Your task to perform on an android device: Clear the shopping cart on target.com. Search for "asus zenbook" on target.com, select the first entry, and add it to the cart. Image 0: 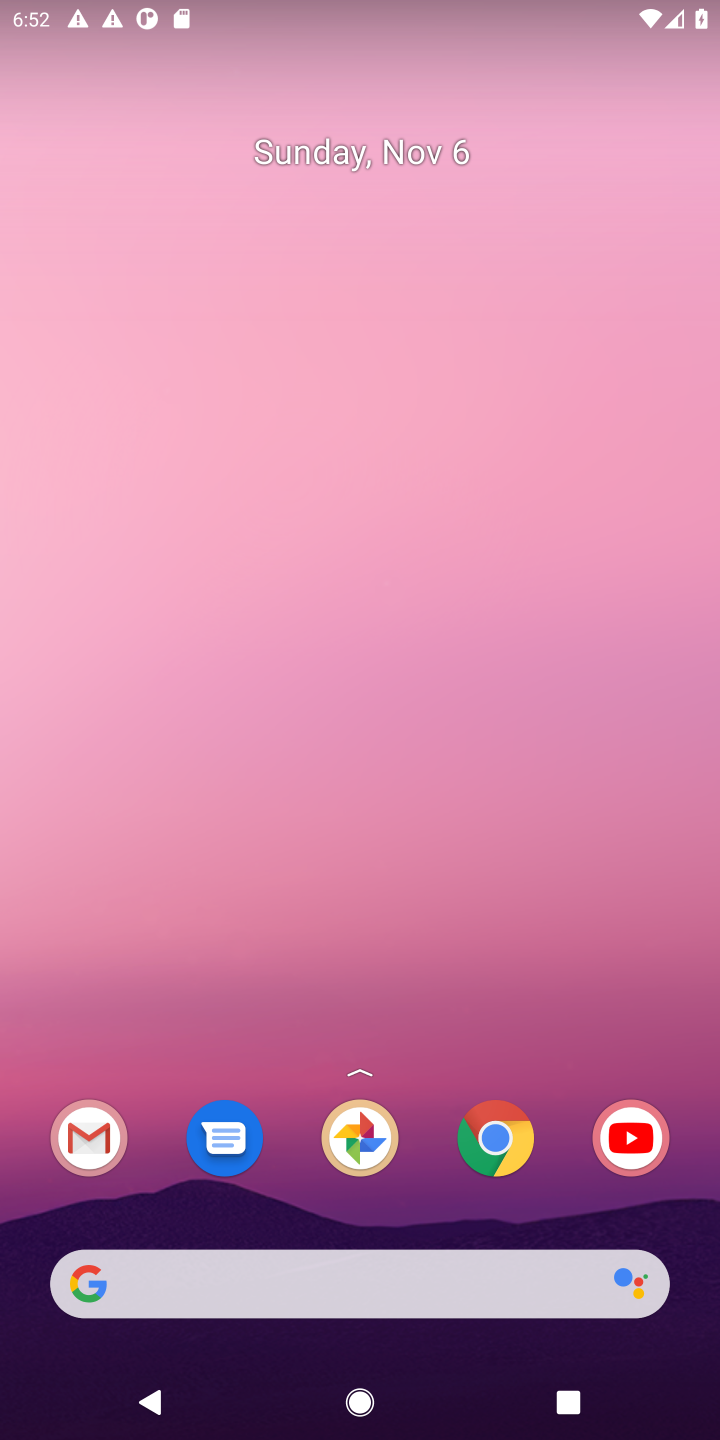
Step 0: drag from (352, 1231) to (352, 178)
Your task to perform on an android device: Clear the shopping cart on target.com. Search for "asus zenbook" on target.com, select the first entry, and add it to the cart. Image 1: 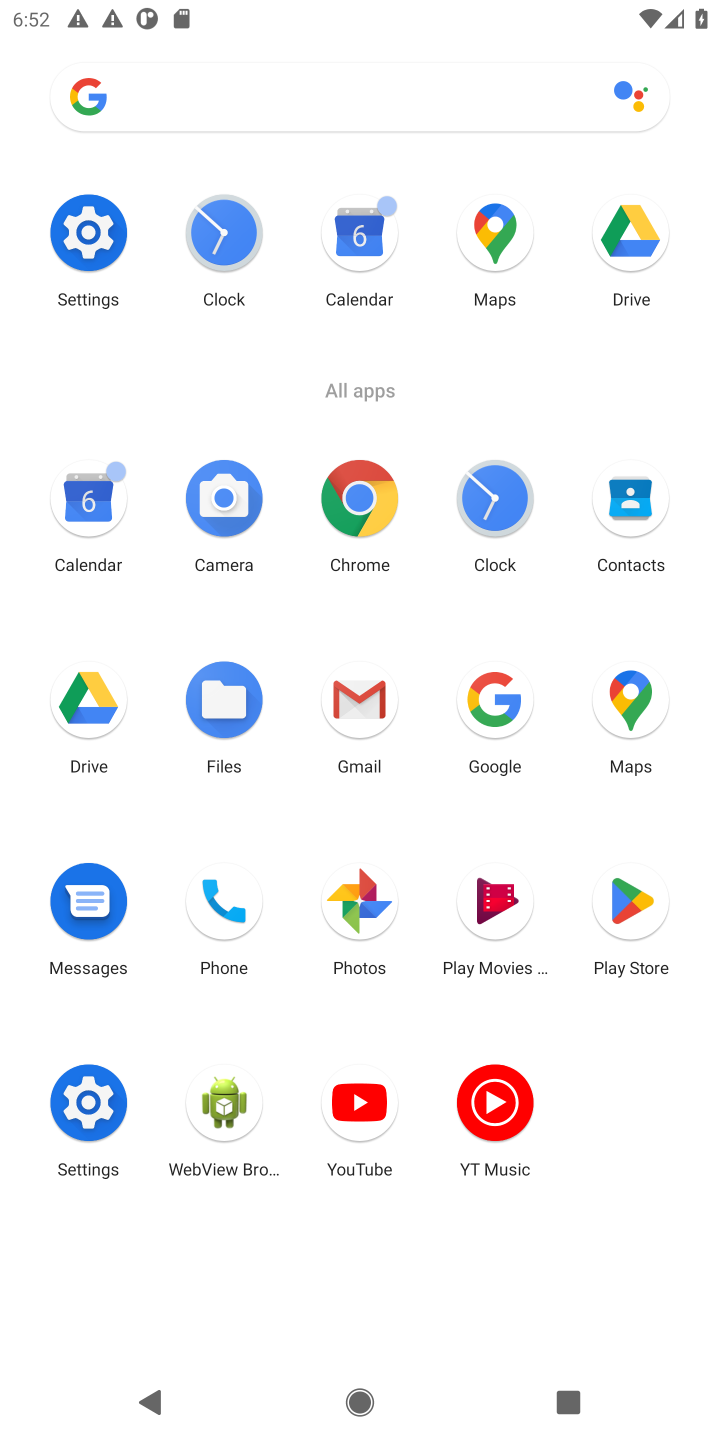
Step 1: click (493, 705)
Your task to perform on an android device: Clear the shopping cart on target.com. Search for "asus zenbook" on target.com, select the first entry, and add it to the cart. Image 2: 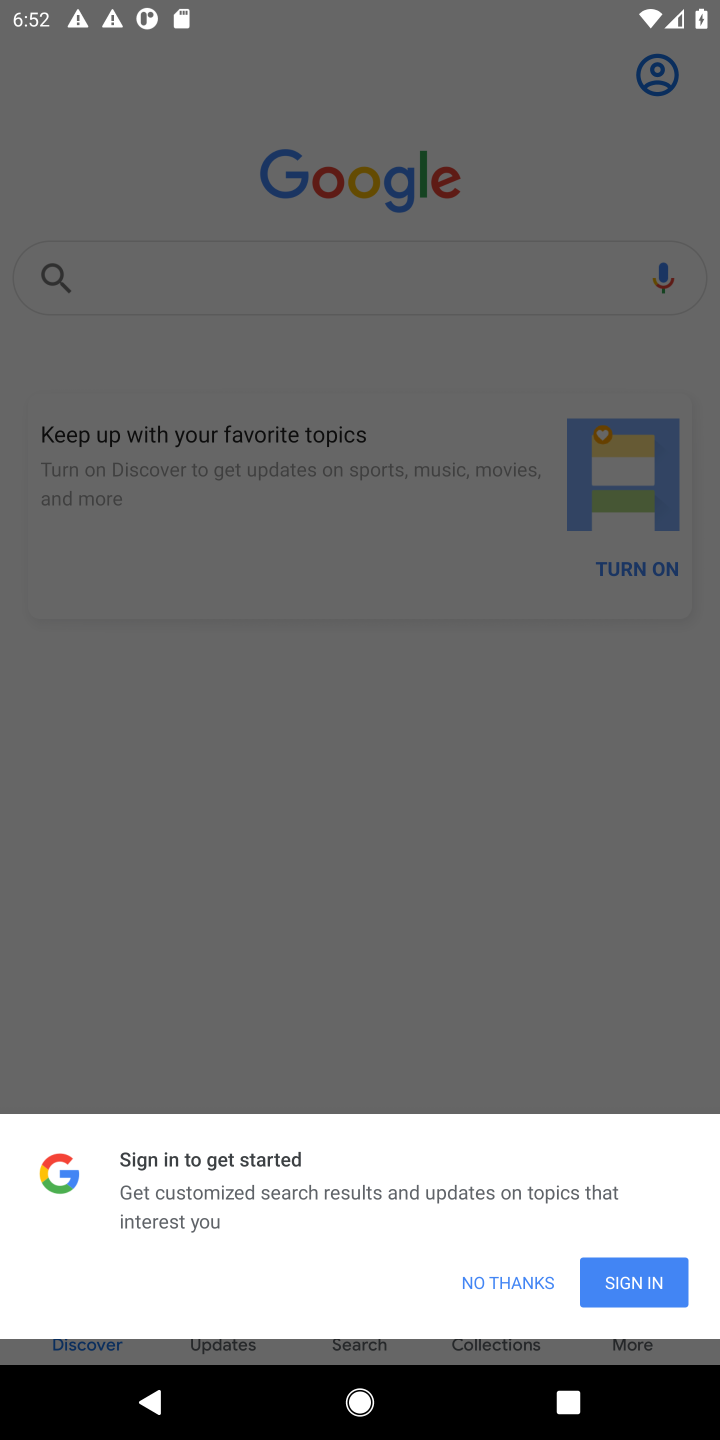
Step 2: click (518, 1299)
Your task to perform on an android device: Clear the shopping cart on target.com. Search for "asus zenbook" on target.com, select the first entry, and add it to the cart. Image 3: 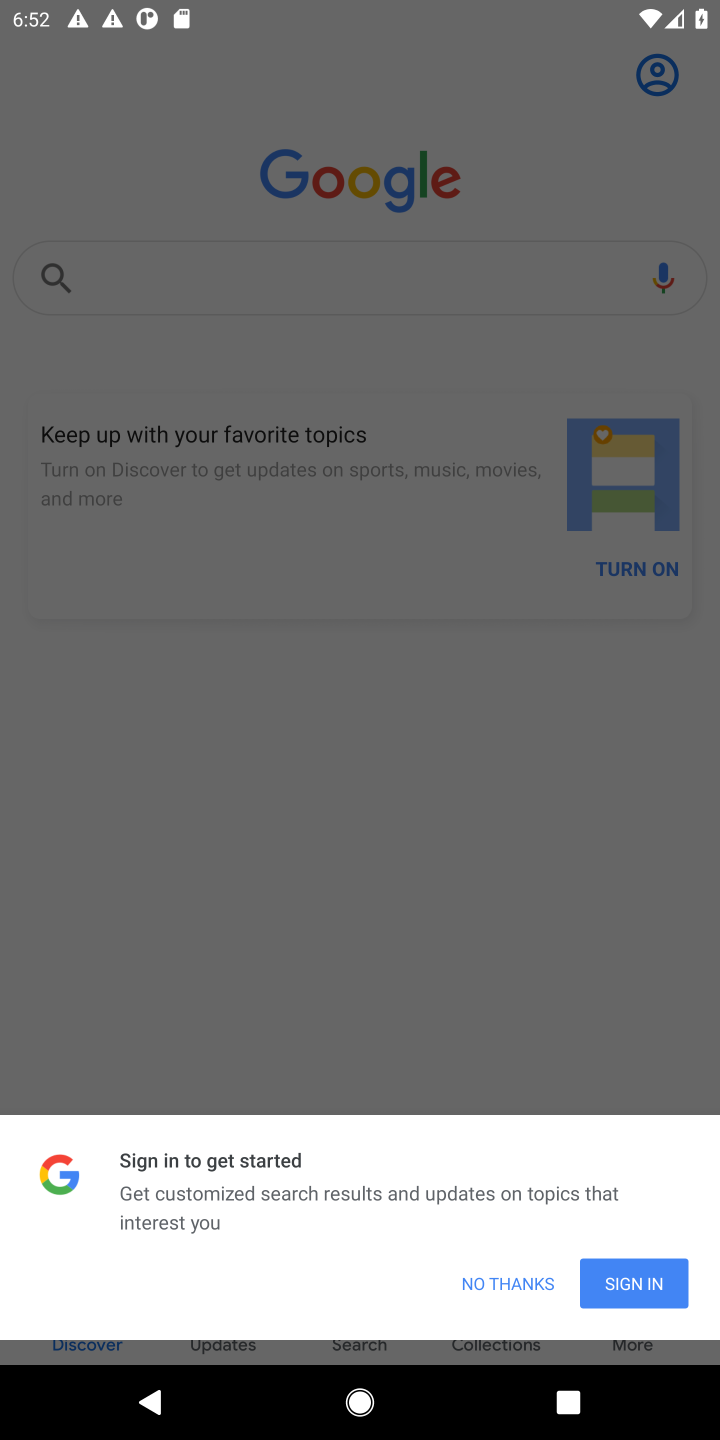
Step 3: click (502, 1276)
Your task to perform on an android device: Clear the shopping cart on target.com. Search for "asus zenbook" on target.com, select the first entry, and add it to the cart. Image 4: 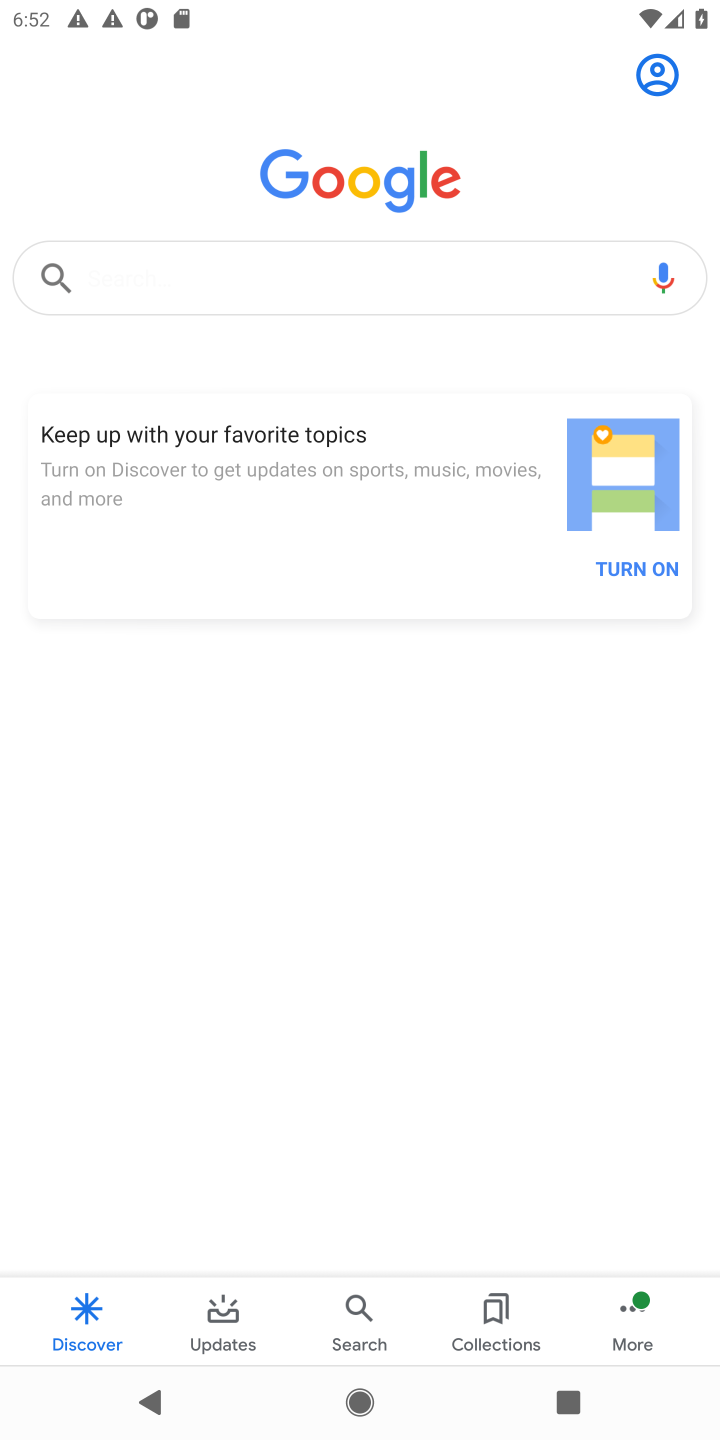
Step 4: click (502, 1276)
Your task to perform on an android device: Clear the shopping cart on target.com. Search for "asus zenbook" on target.com, select the first entry, and add it to the cart. Image 5: 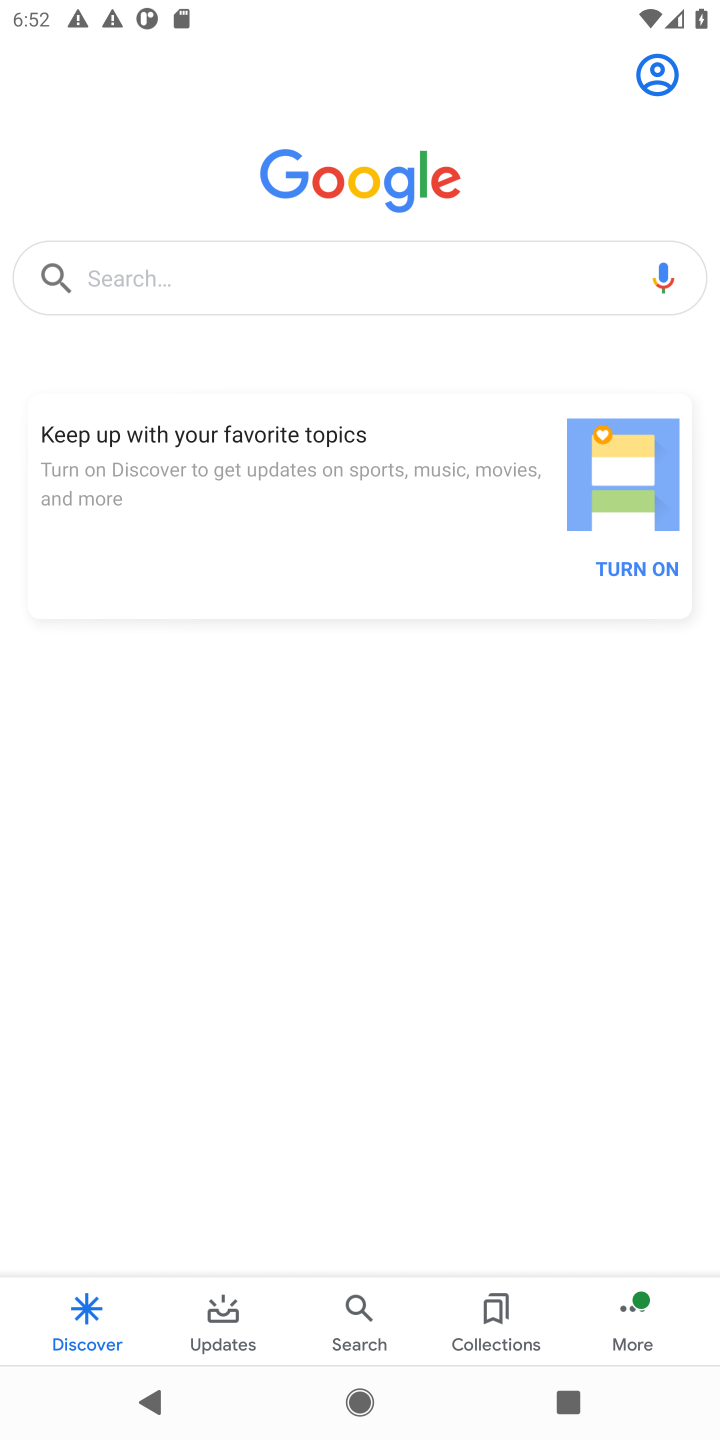
Step 5: click (332, 268)
Your task to perform on an android device: Clear the shopping cart on target.com. Search for "asus zenbook" on target.com, select the first entry, and add it to the cart. Image 6: 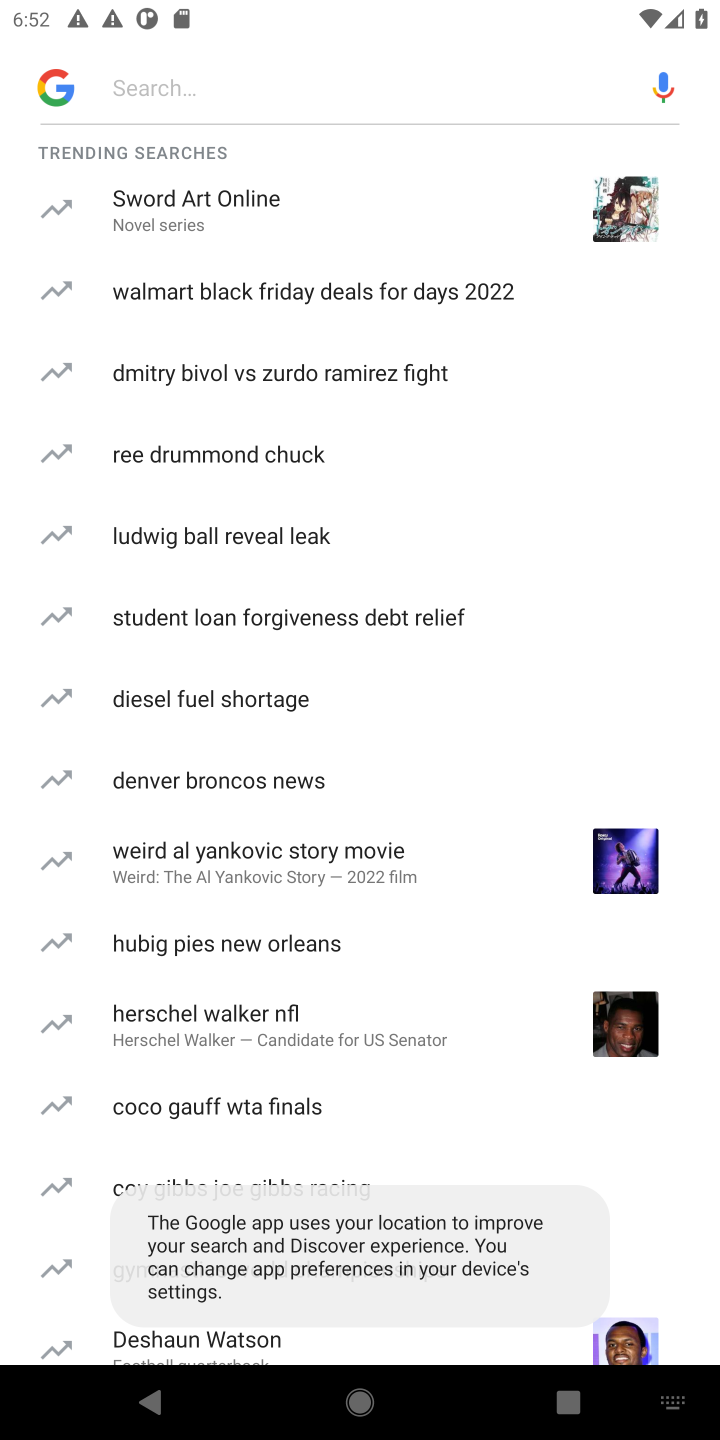
Step 6: type " target.com "
Your task to perform on an android device: Clear the shopping cart on target.com. Search for "asus zenbook" on target.com, select the first entry, and add it to the cart. Image 7: 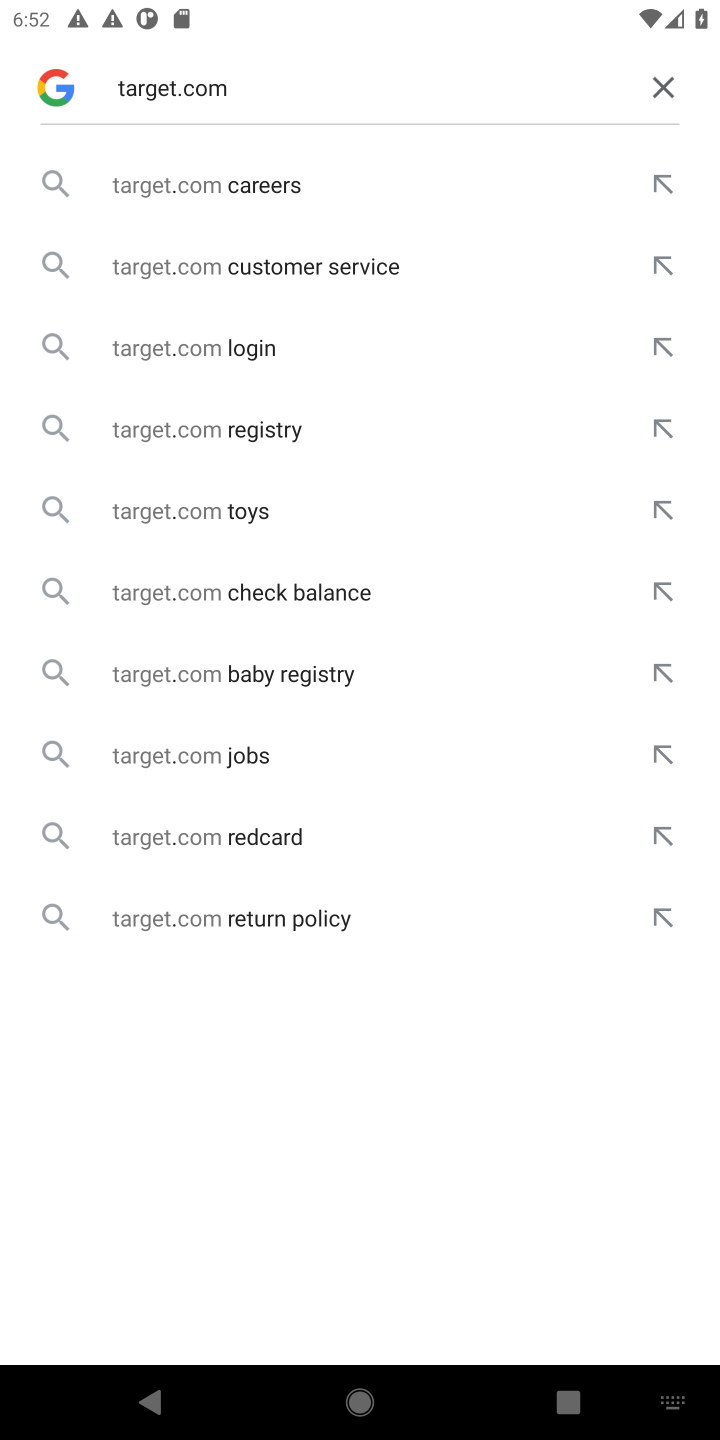
Step 7: click (192, 345)
Your task to perform on an android device: Clear the shopping cart on target.com. Search for "asus zenbook" on target.com, select the first entry, and add it to the cart. Image 8: 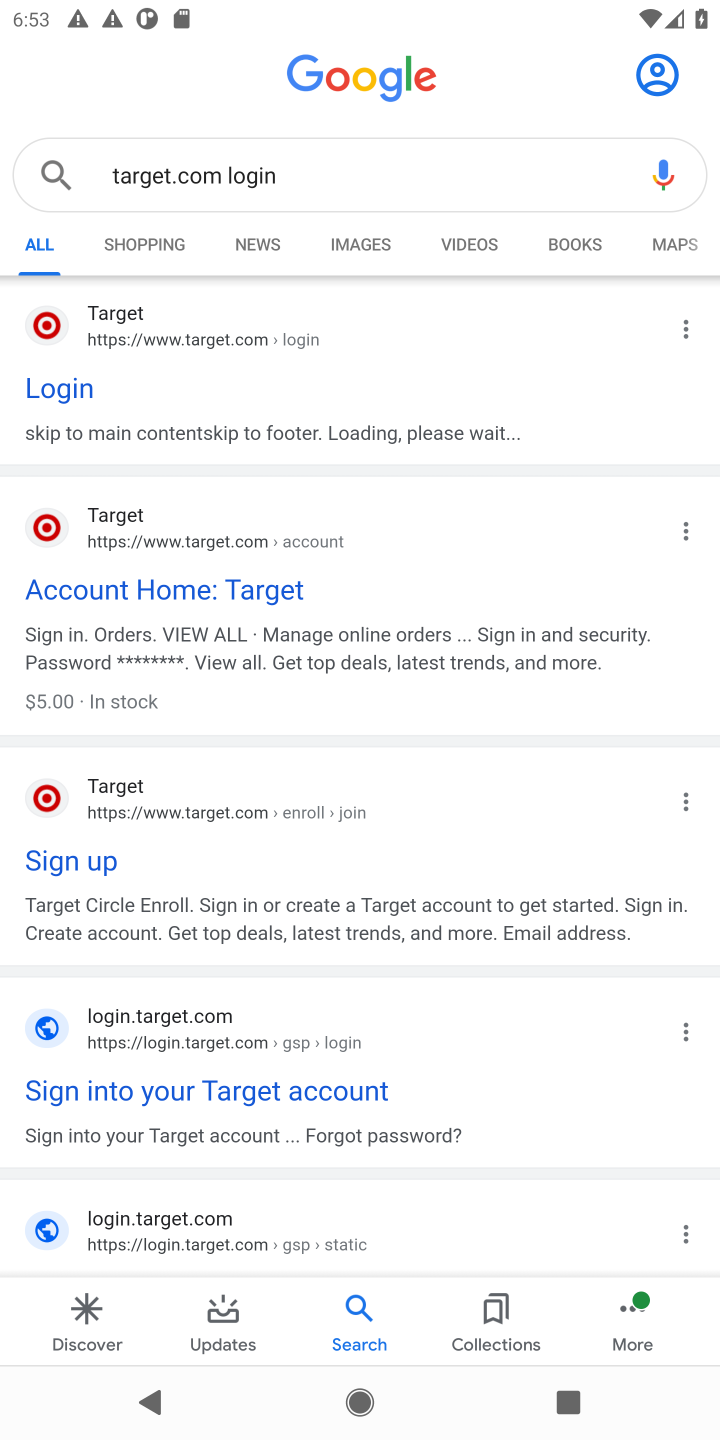
Step 8: click (46, 329)
Your task to perform on an android device: Clear the shopping cart on target.com. Search for "asus zenbook" on target.com, select the first entry, and add it to the cart. Image 9: 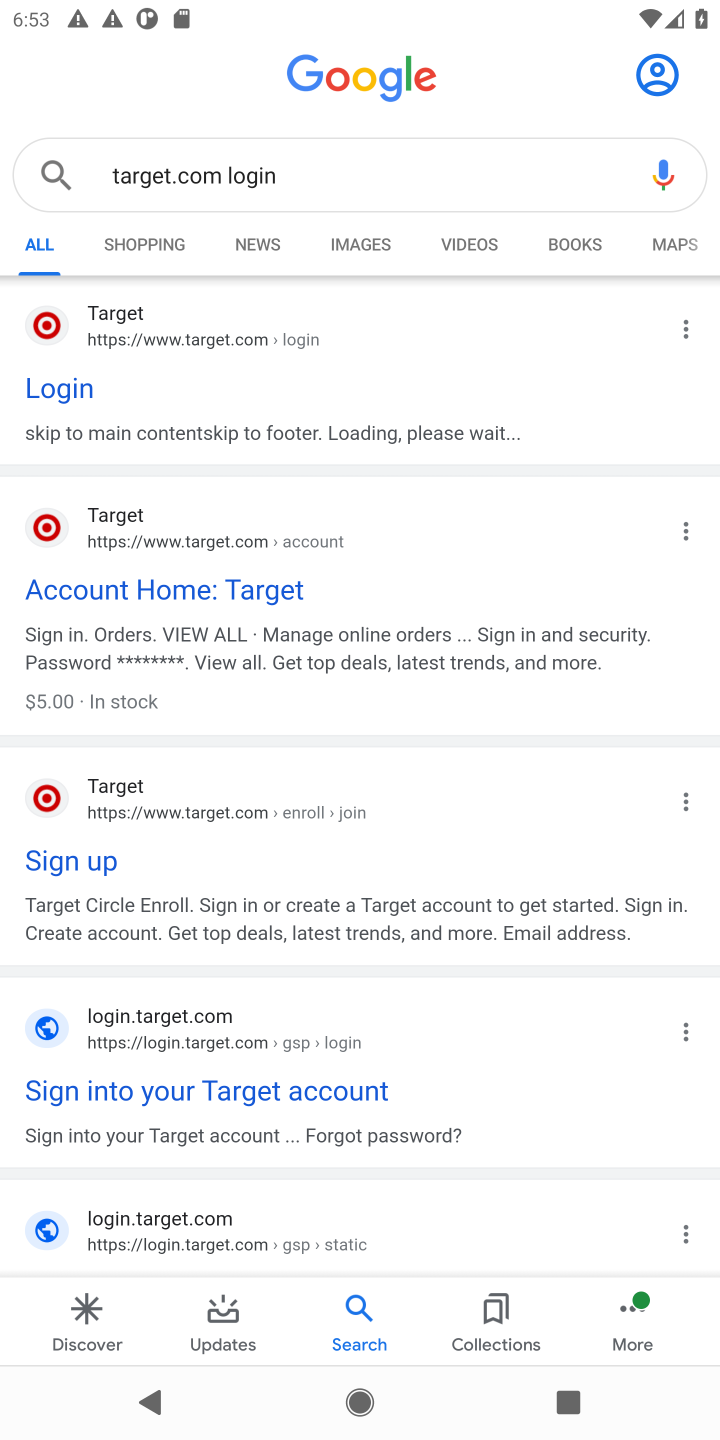
Step 9: click (46, 329)
Your task to perform on an android device: Clear the shopping cart on target.com. Search for "asus zenbook" on target.com, select the first entry, and add it to the cart. Image 10: 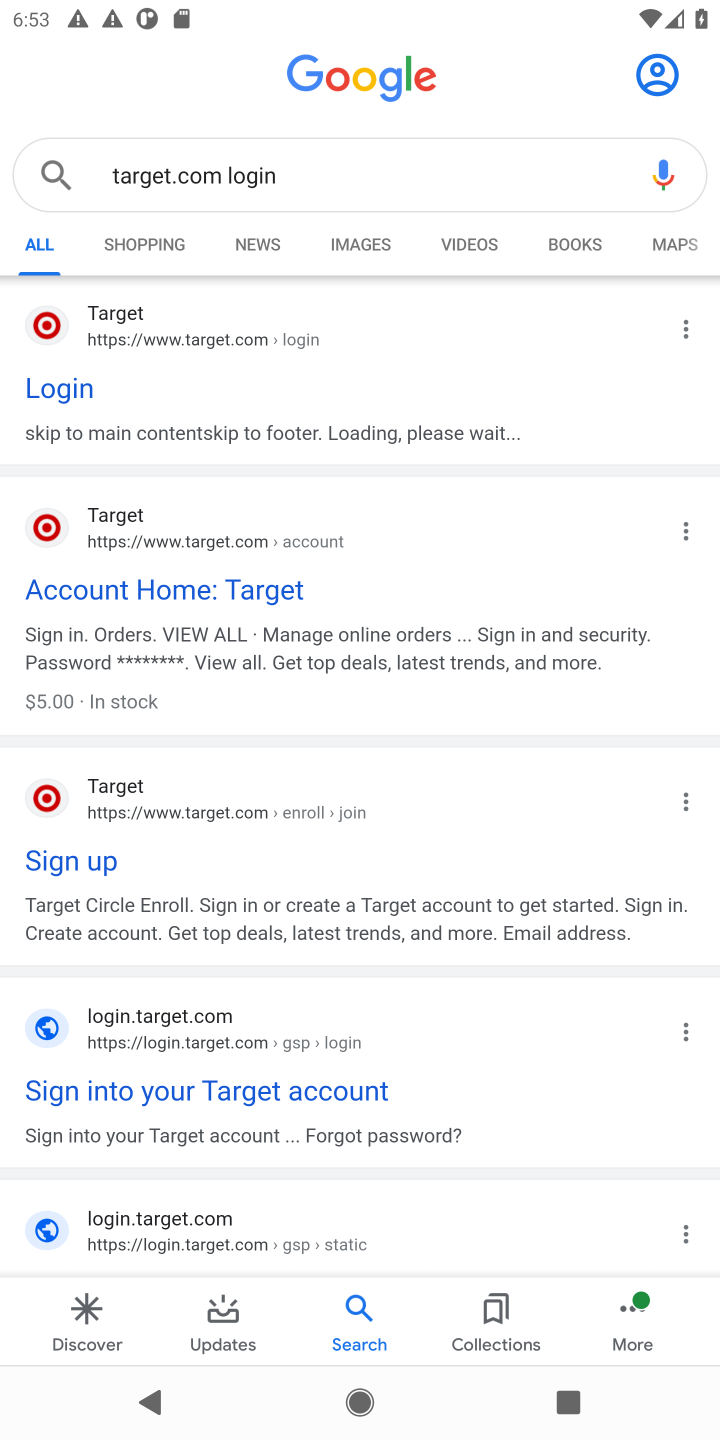
Step 10: click (46, 326)
Your task to perform on an android device: Clear the shopping cart on target.com. Search for "asus zenbook" on target.com, select the first entry, and add it to the cart. Image 11: 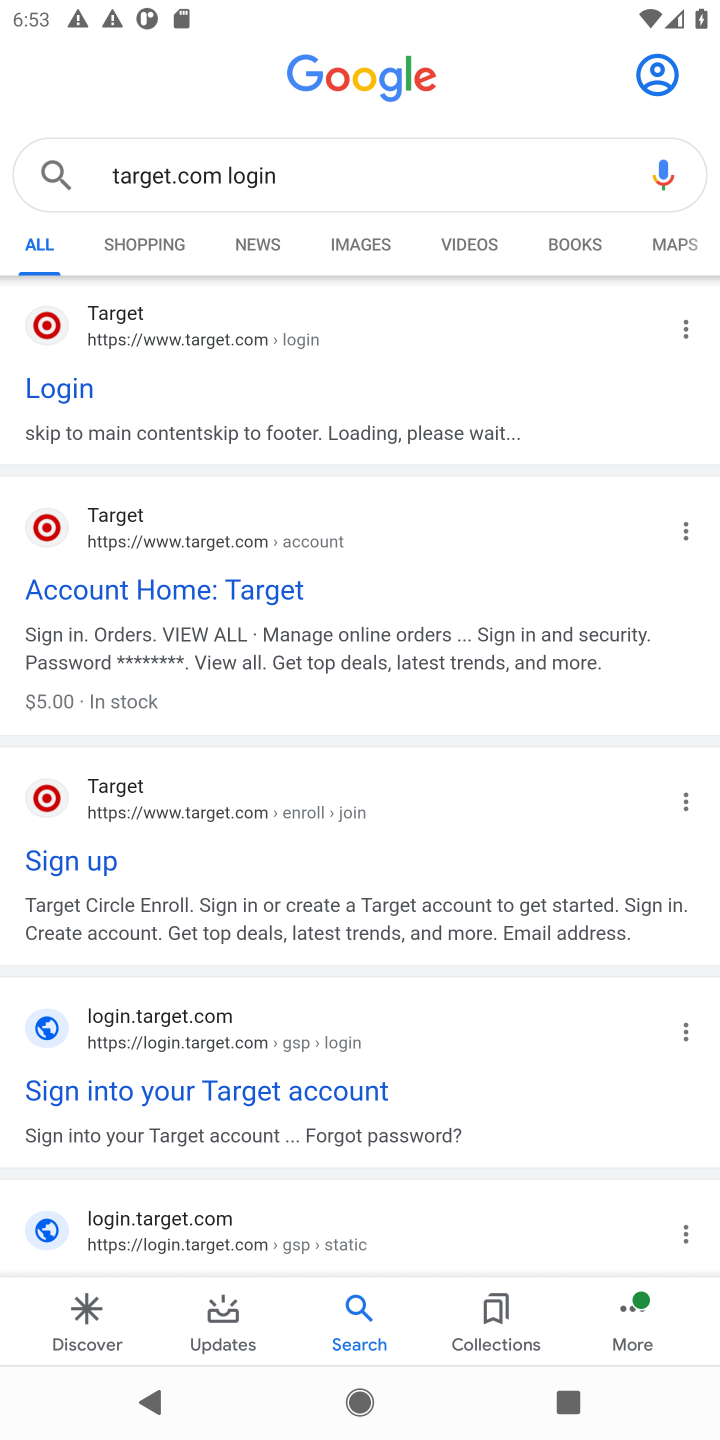
Step 11: click (46, 326)
Your task to perform on an android device: Clear the shopping cart on target.com. Search for "asus zenbook" on target.com, select the first entry, and add it to the cart. Image 12: 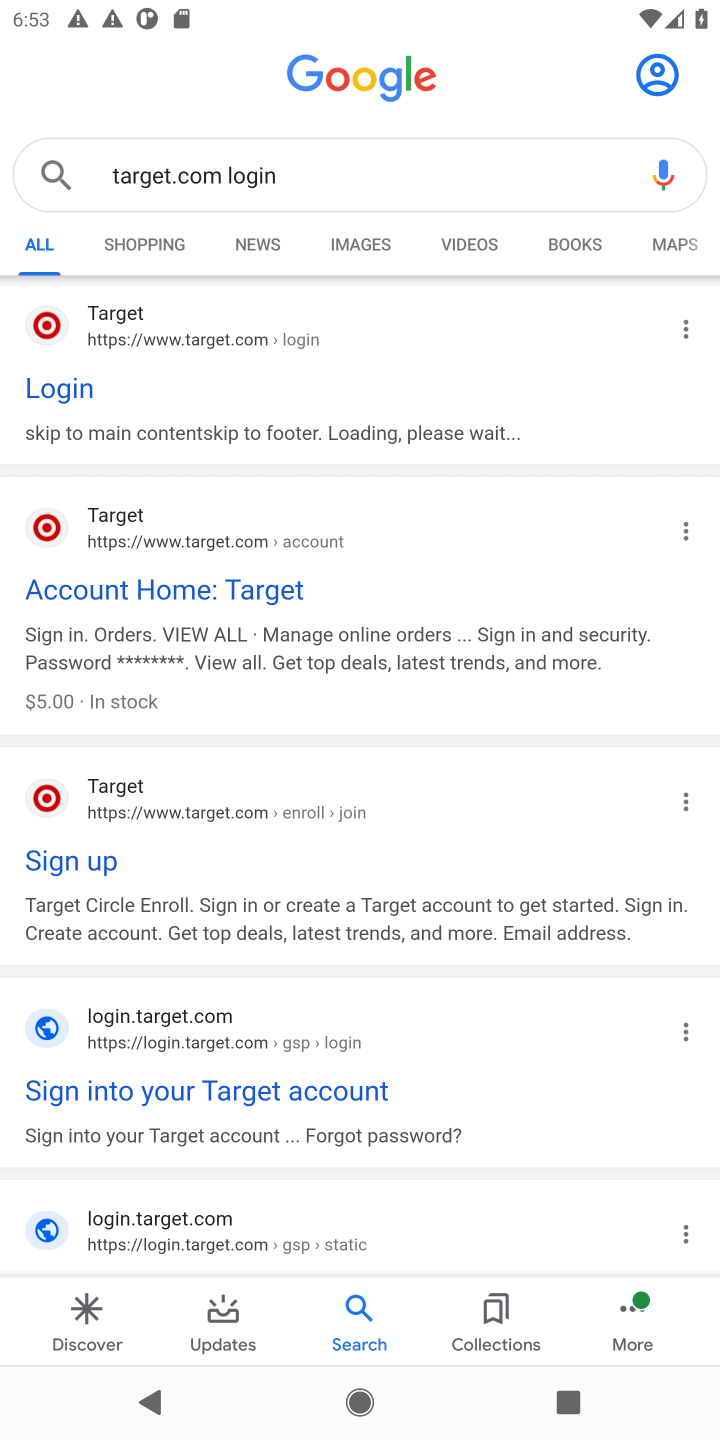
Step 12: click (46, 326)
Your task to perform on an android device: Clear the shopping cart on target.com. Search for "asus zenbook" on target.com, select the first entry, and add it to the cart. Image 13: 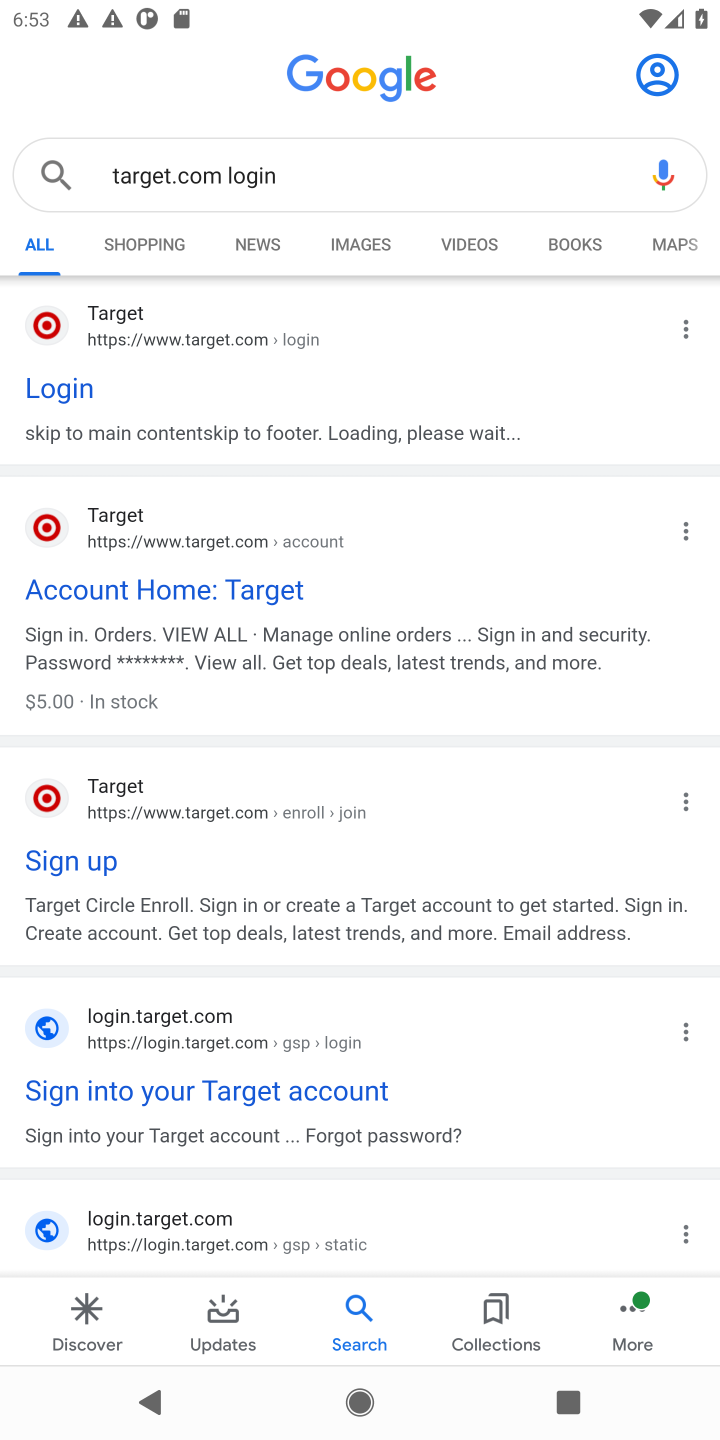
Step 13: click (45, 324)
Your task to perform on an android device: Clear the shopping cart on target.com. Search for "asus zenbook" on target.com, select the first entry, and add it to the cart. Image 14: 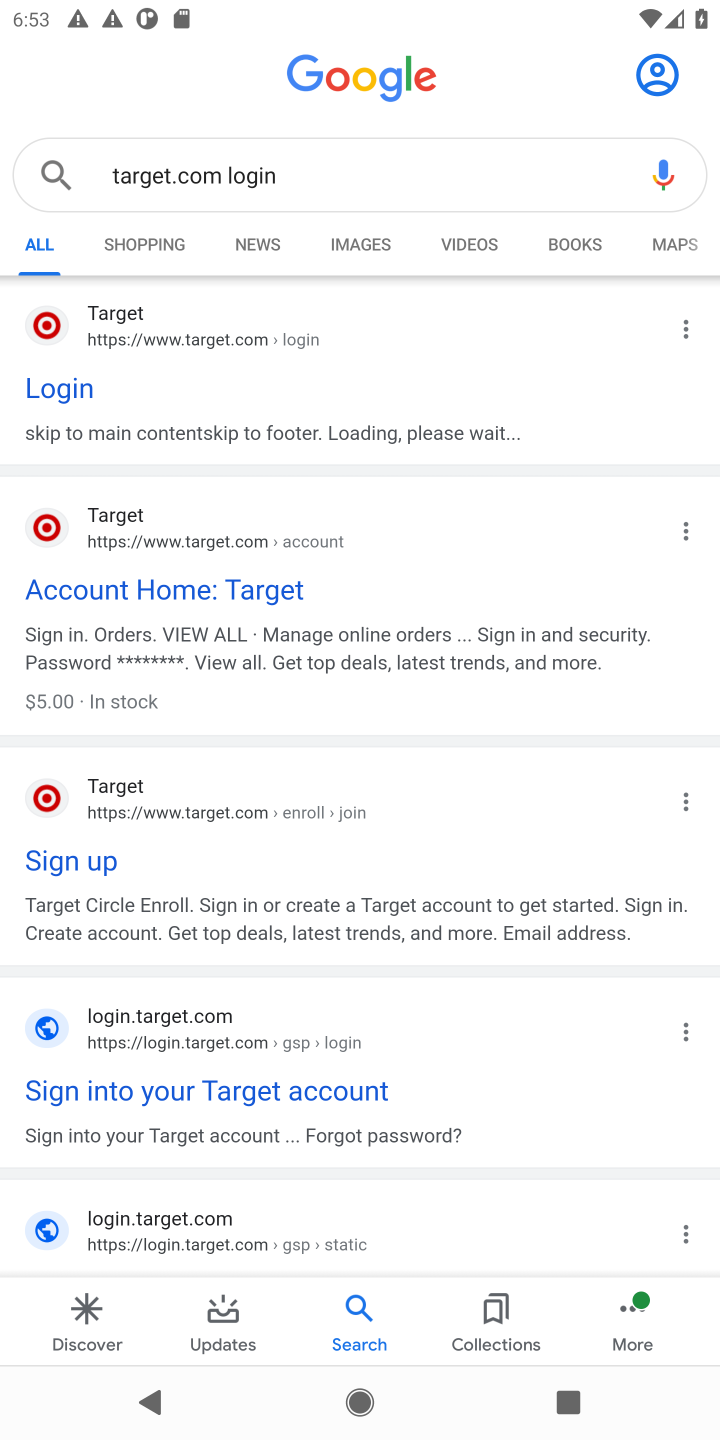
Step 14: click (53, 371)
Your task to perform on an android device: Clear the shopping cart on target.com. Search for "asus zenbook" on target.com, select the first entry, and add it to the cart. Image 15: 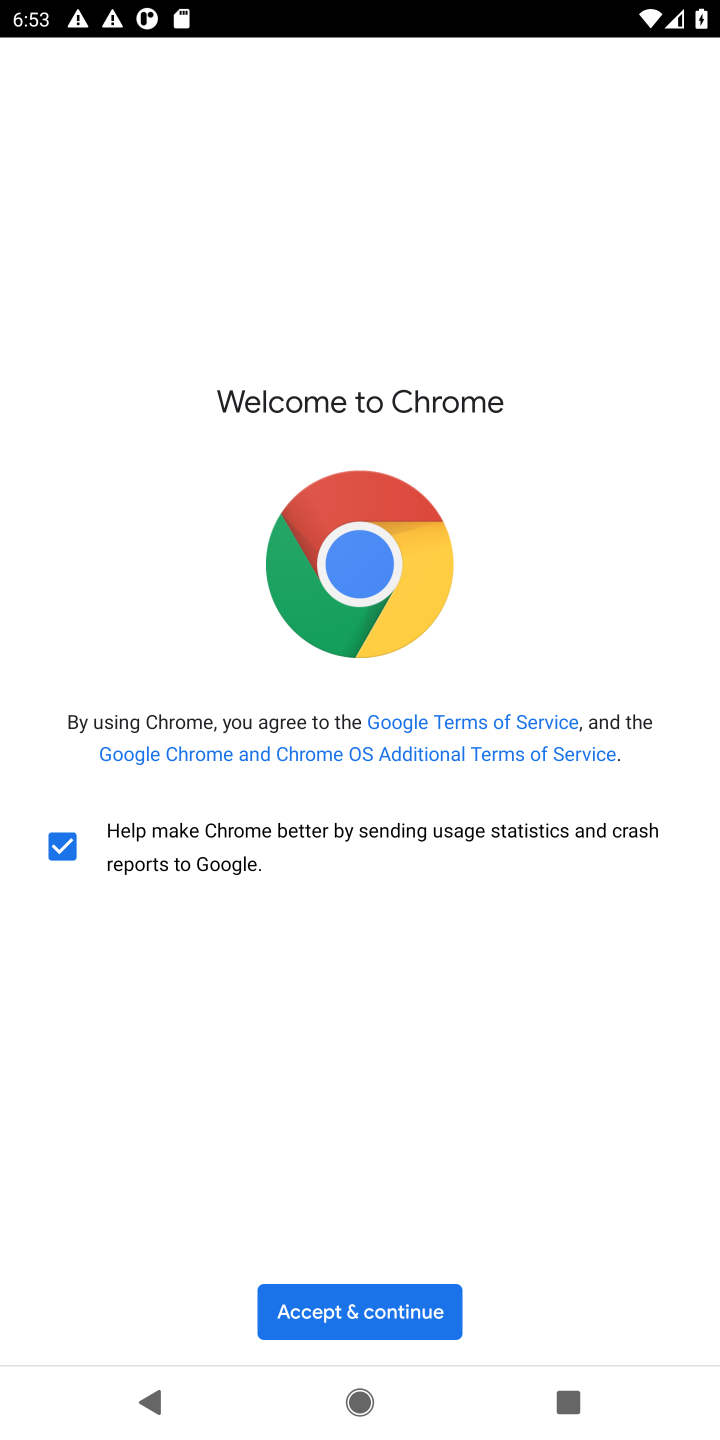
Step 15: click (404, 1293)
Your task to perform on an android device: Clear the shopping cart on target.com. Search for "asus zenbook" on target.com, select the first entry, and add it to the cart. Image 16: 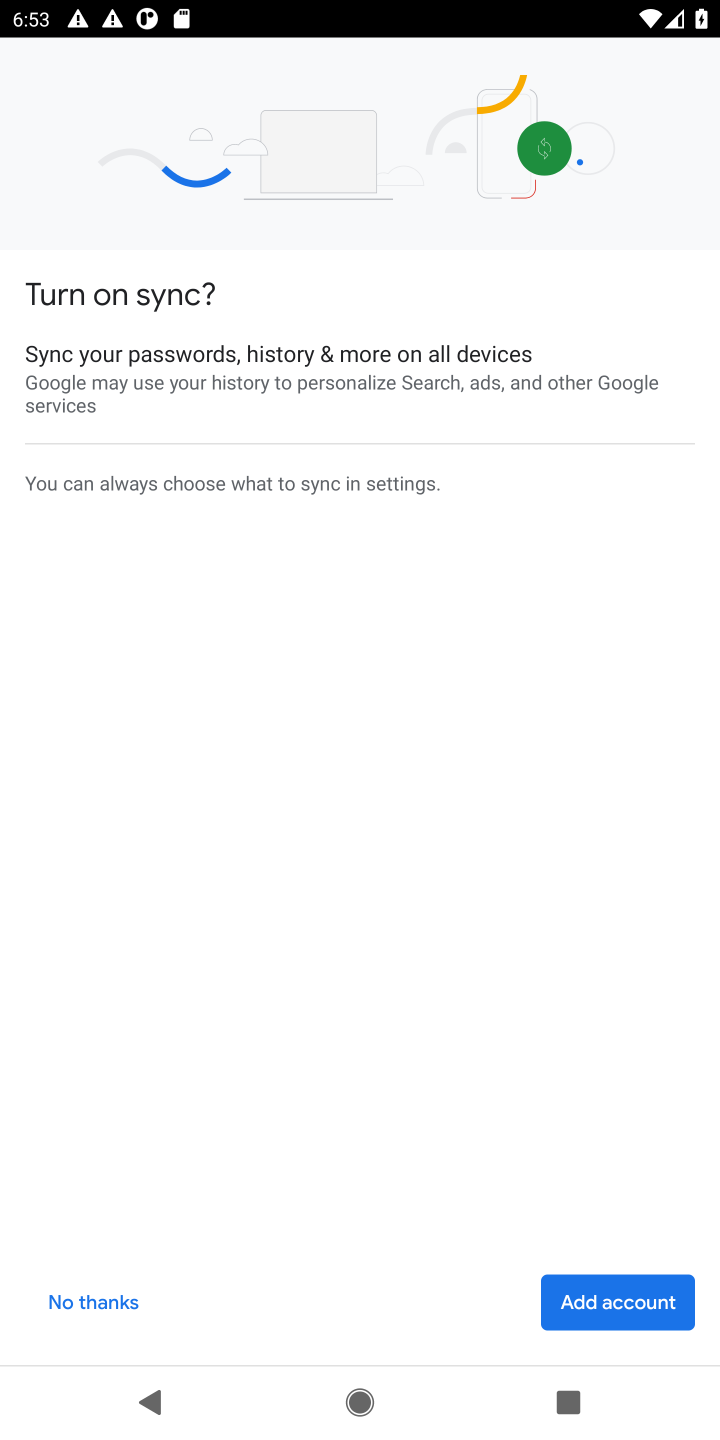
Step 16: click (111, 1289)
Your task to perform on an android device: Clear the shopping cart on target.com. Search for "asus zenbook" on target.com, select the first entry, and add it to the cart. Image 17: 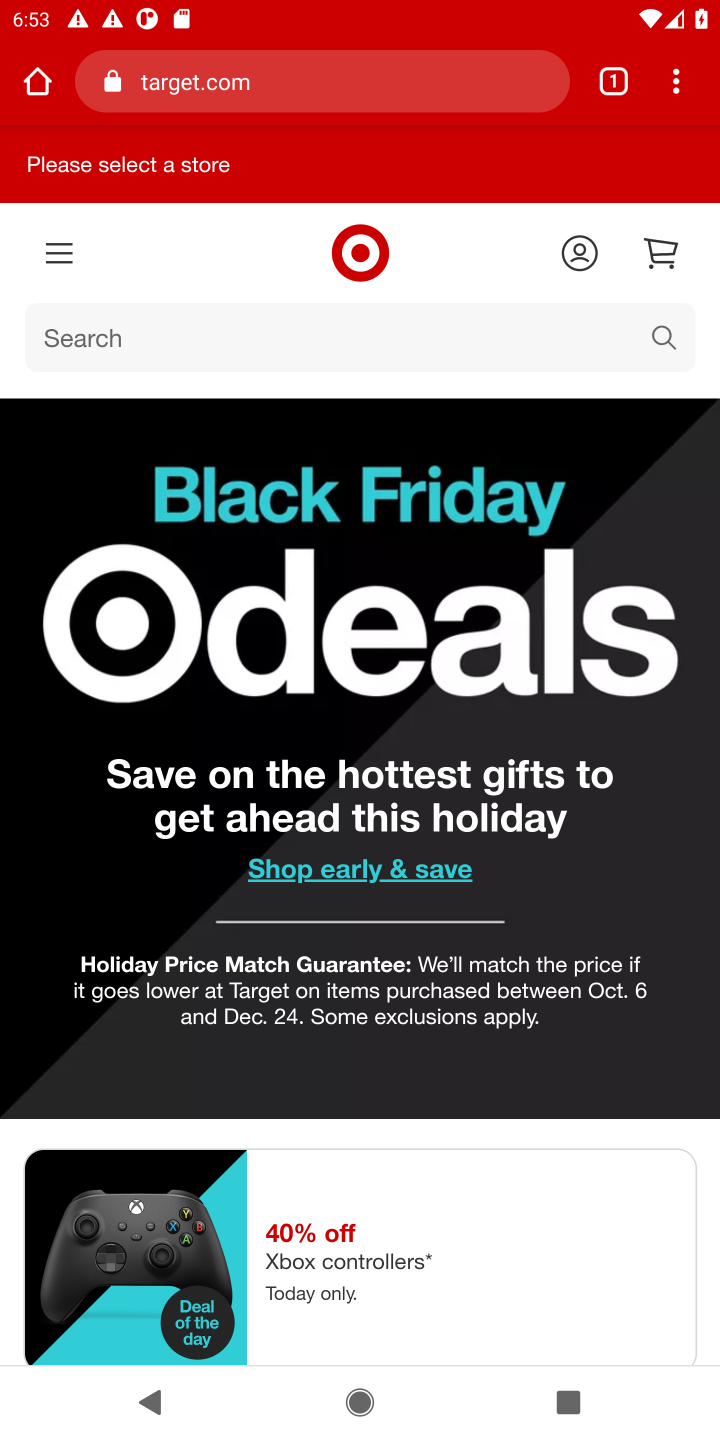
Step 17: click (230, 329)
Your task to perform on an android device: Clear the shopping cart on target.com. Search for "asus zenbook" on target.com, select the first entry, and add it to the cart. Image 18: 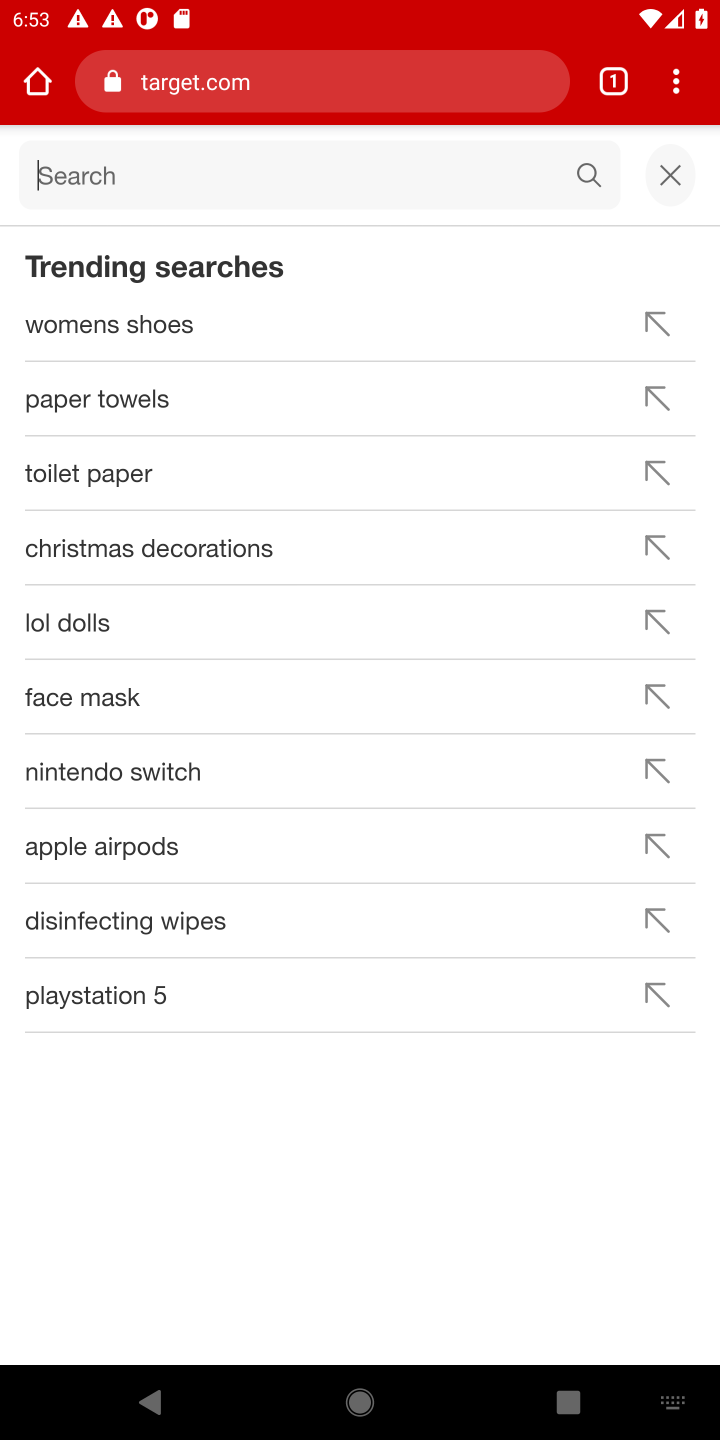
Step 18: type "asus zenbook "
Your task to perform on an android device: Clear the shopping cart on target.com. Search for "asus zenbook" on target.com, select the first entry, and add it to the cart. Image 19: 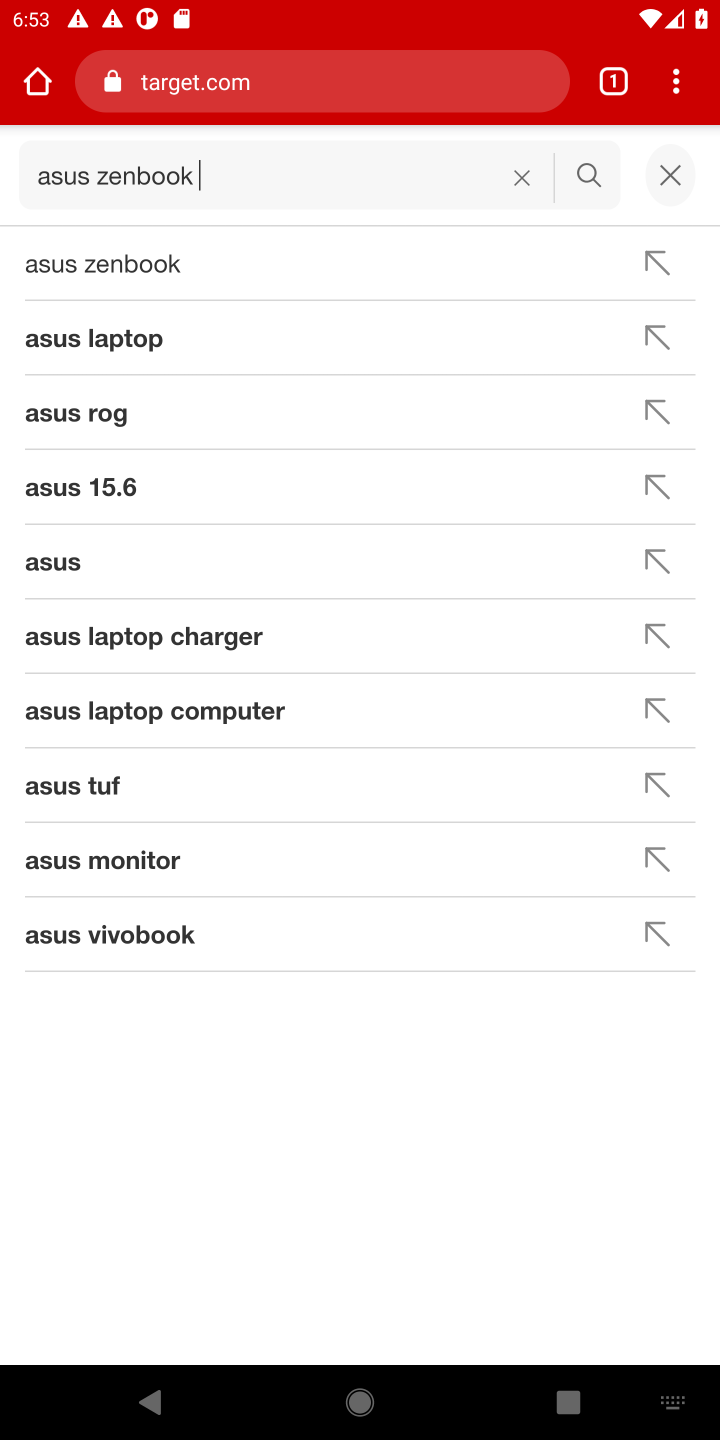
Step 19: click (378, 281)
Your task to perform on an android device: Clear the shopping cart on target.com. Search for "asus zenbook" on target.com, select the first entry, and add it to the cart. Image 20: 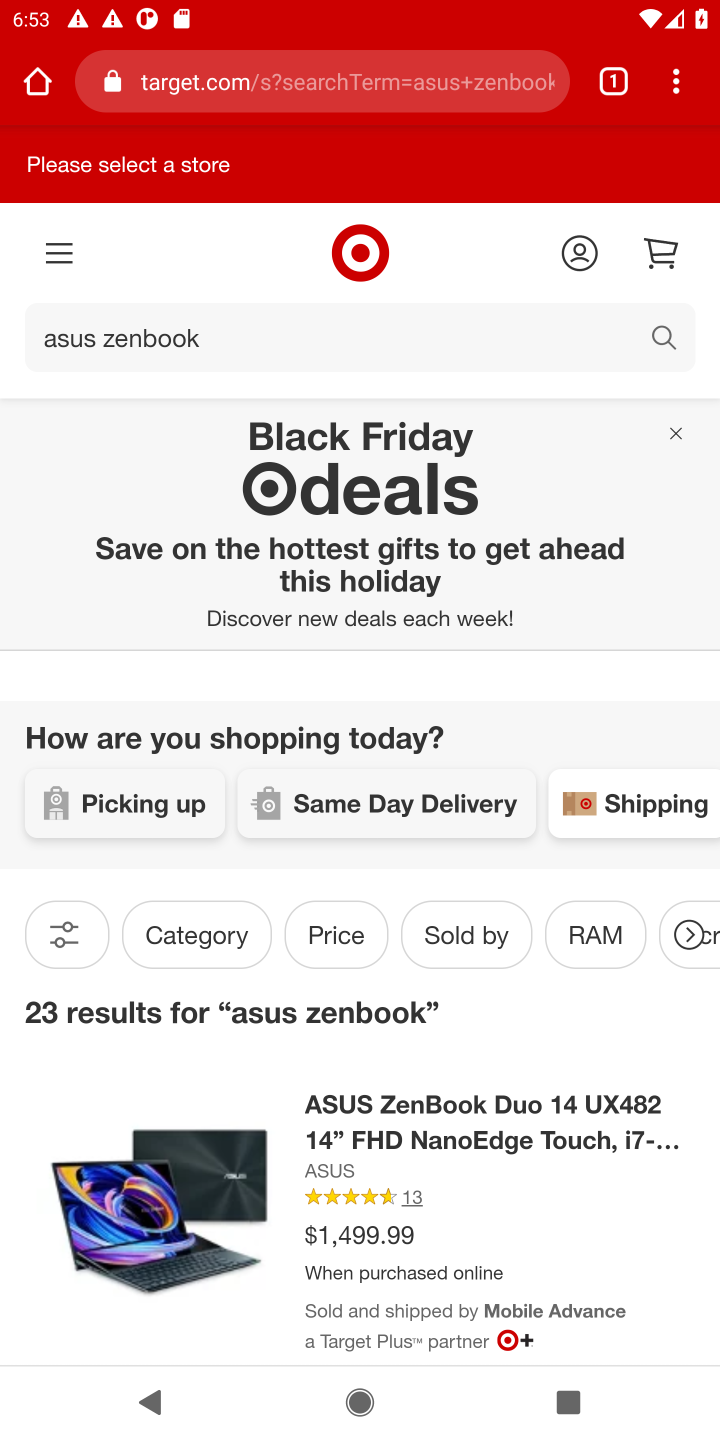
Step 20: drag from (433, 1152) to (436, 557)
Your task to perform on an android device: Clear the shopping cart on target.com. Search for "asus zenbook" on target.com, select the first entry, and add it to the cart. Image 21: 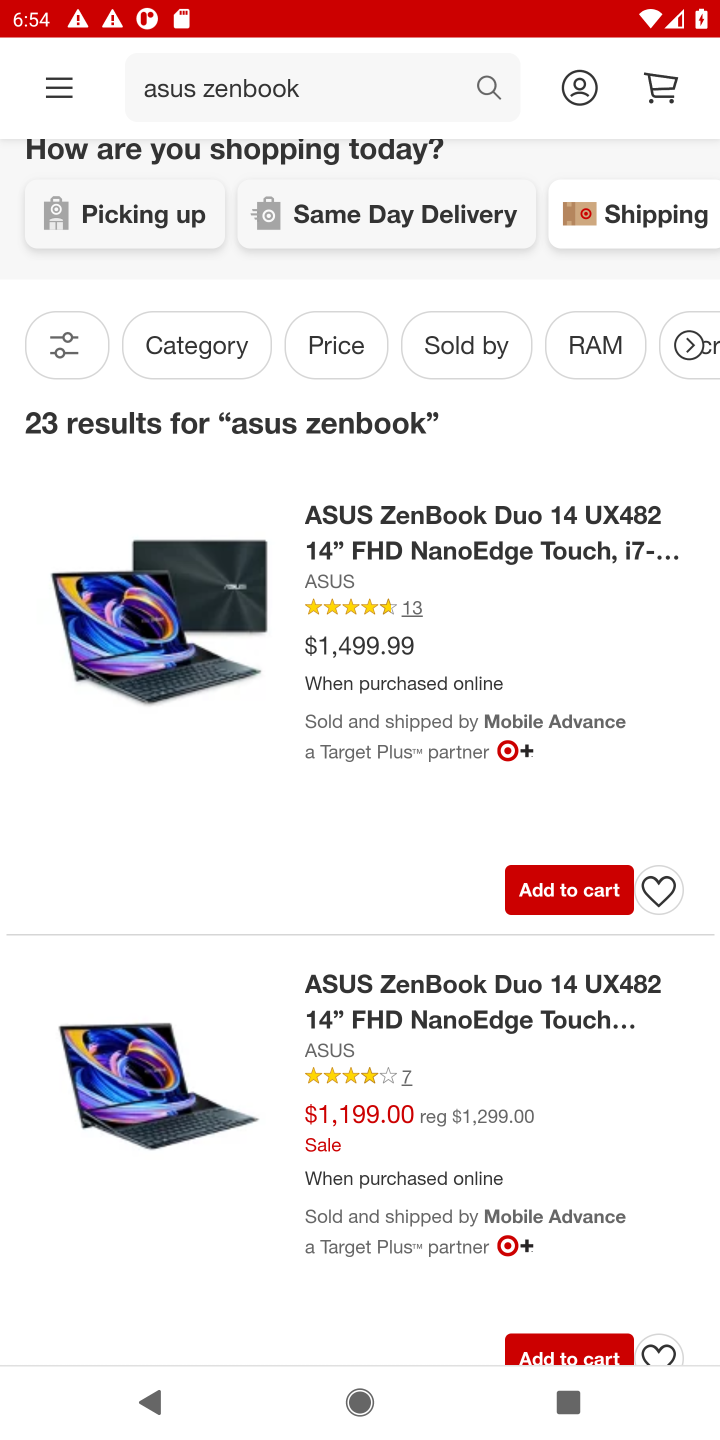
Step 21: click (540, 896)
Your task to perform on an android device: Clear the shopping cart on target.com. Search for "asus zenbook" on target.com, select the first entry, and add it to the cart. Image 22: 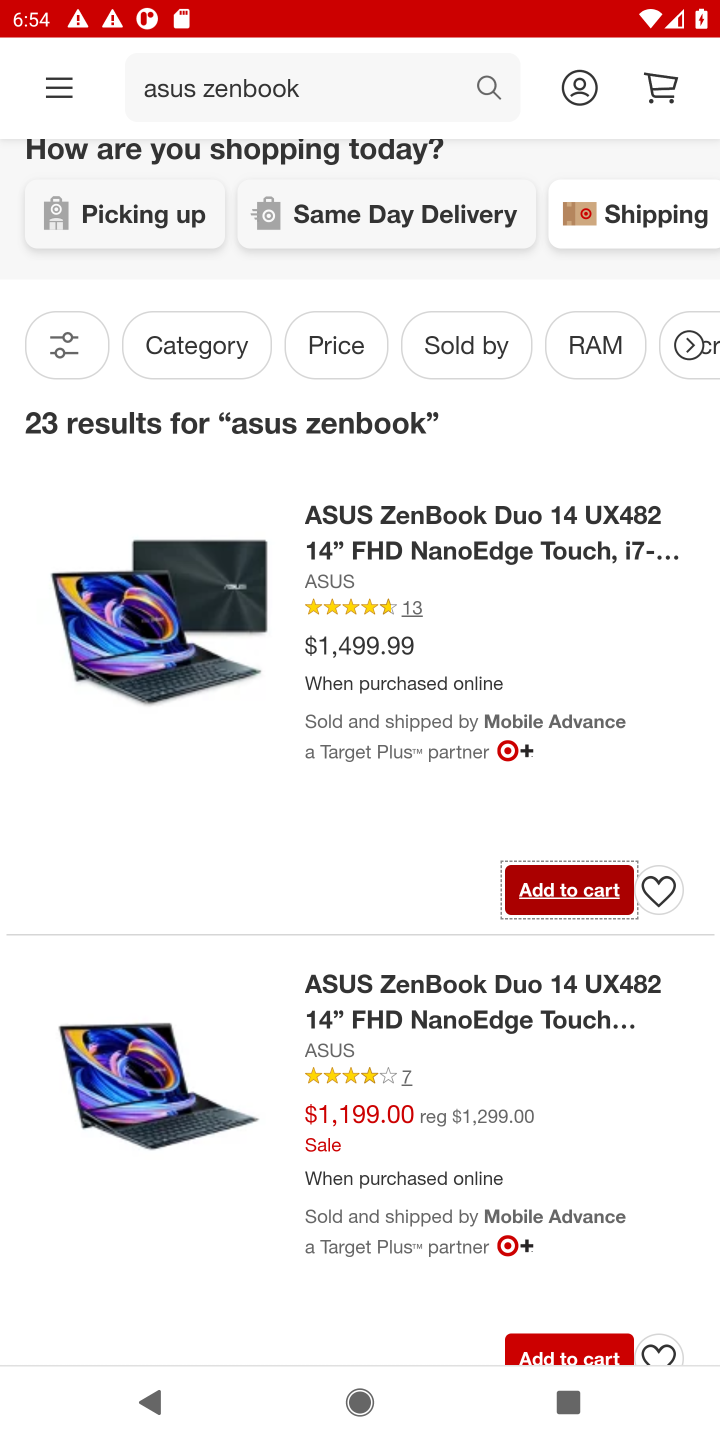
Step 22: click (559, 881)
Your task to perform on an android device: Clear the shopping cart on target.com. Search for "asus zenbook" on target.com, select the first entry, and add it to the cart. Image 23: 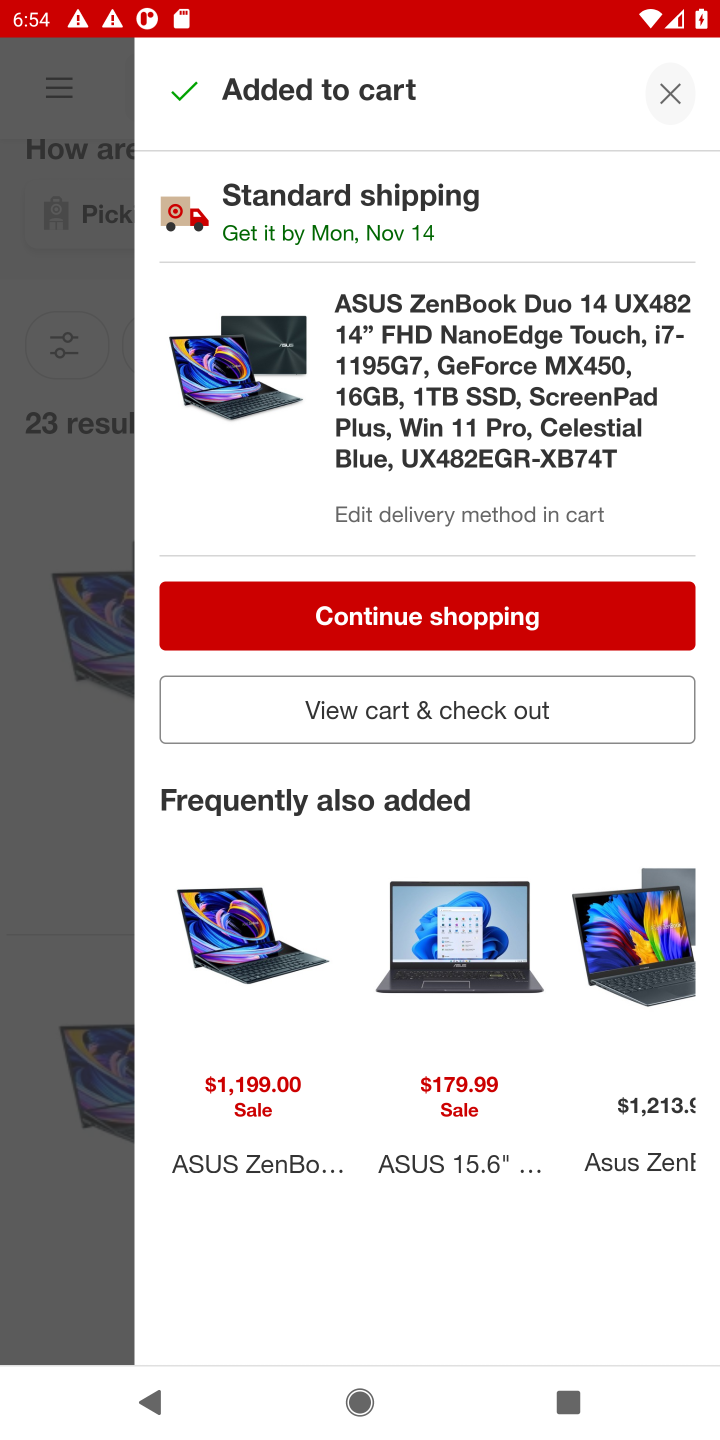
Step 23: task complete